Your task to perform on an android device: empty trash in google photos Image 0: 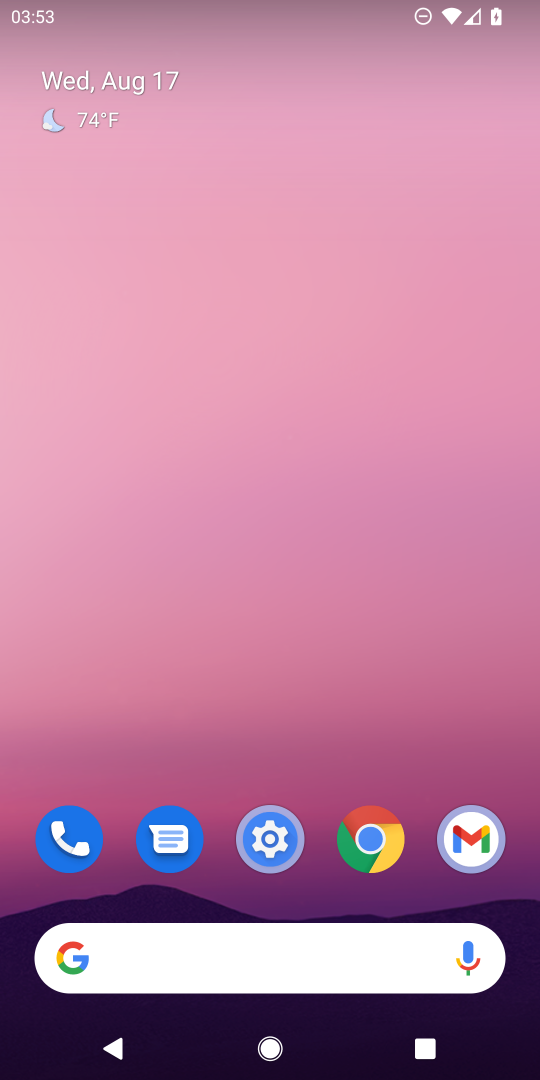
Step 0: drag from (312, 903) to (312, 139)
Your task to perform on an android device: empty trash in google photos Image 1: 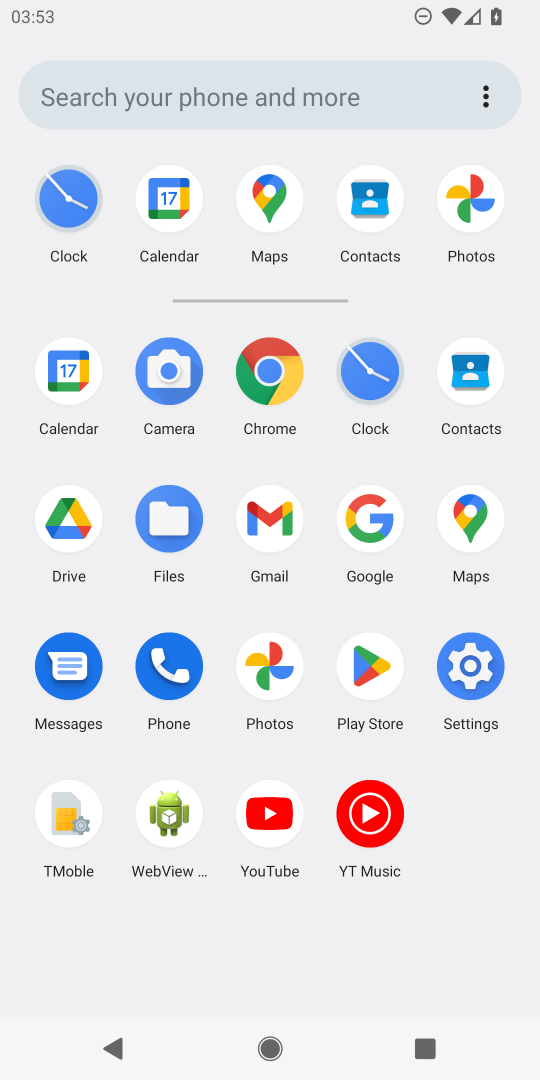
Step 1: click (271, 664)
Your task to perform on an android device: empty trash in google photos Image 2: 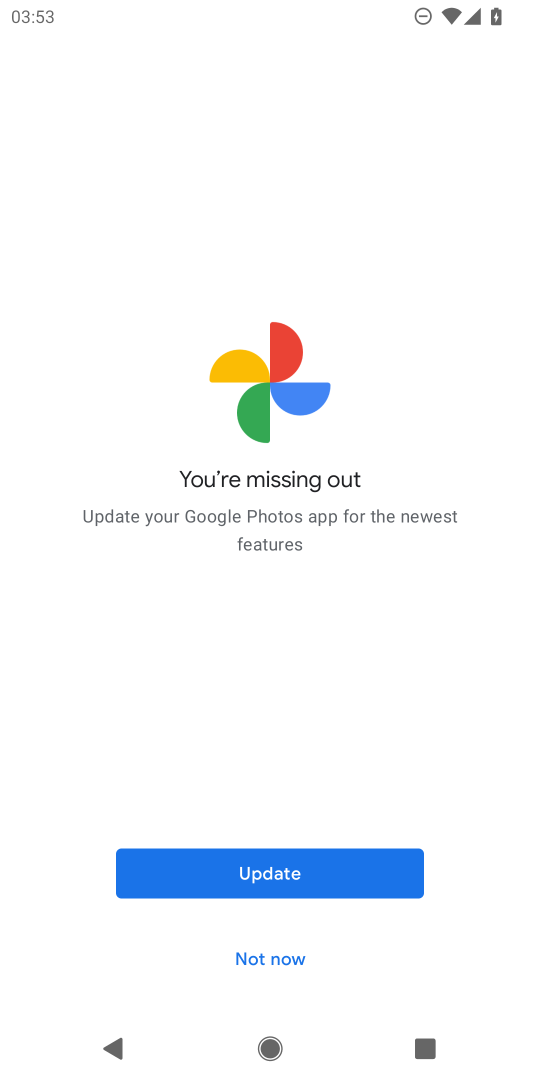
Step 2: task complete